Your task to perform on an android device: Go to accessibility settings Image 0: 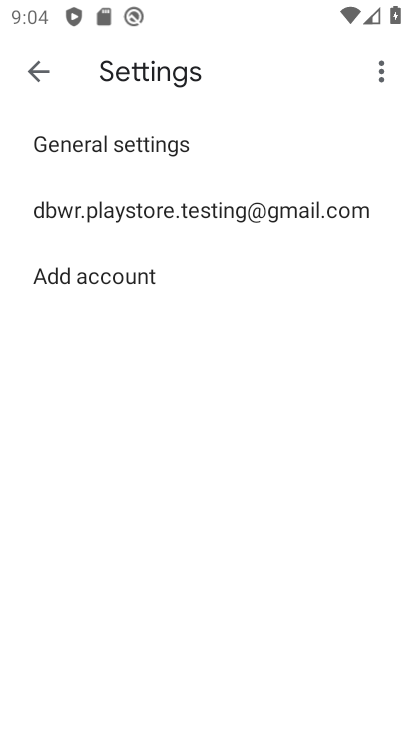
Step 0: press home button
Your task to perform on an android device: Go to accessibility settings Image 1: 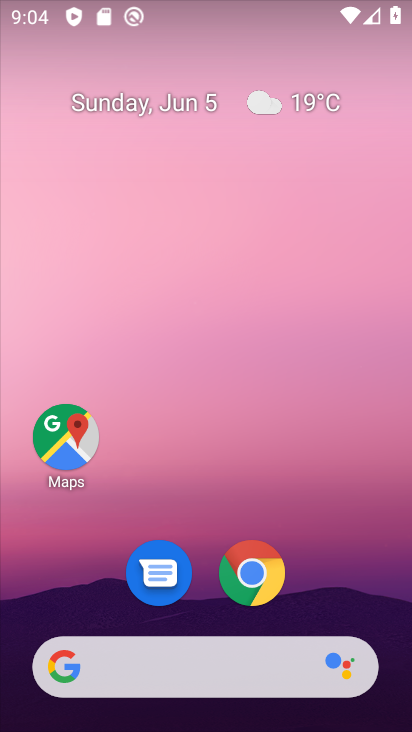
Step 1: drag from (225, 646) to (230, 14)
Your task to perform on an android device: Go to accessibility settings Image 2: 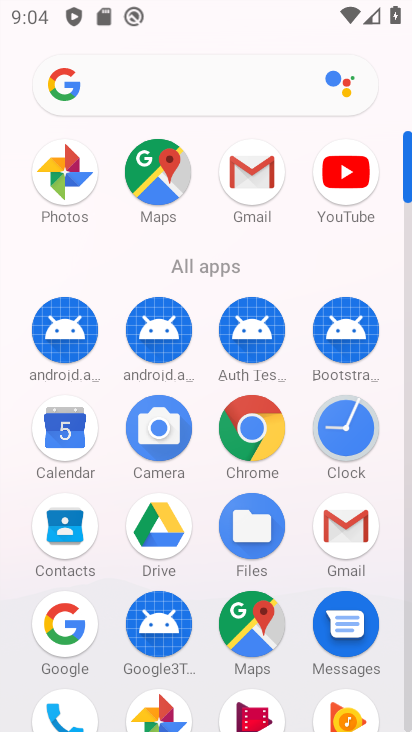
Step 2: drag from (308, 654) to (318, 324)
Your task to perform on an android device: Go to accessibility settings Image 3: 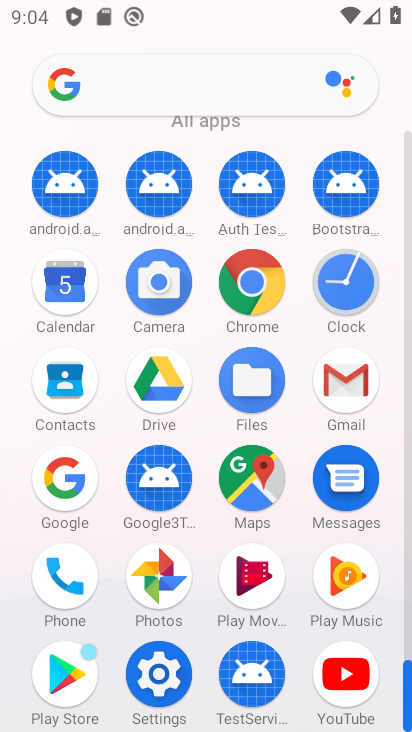
Step 3: click (158, 677)
Your task to perform on an android device: Go to accessibility settings Image 4: 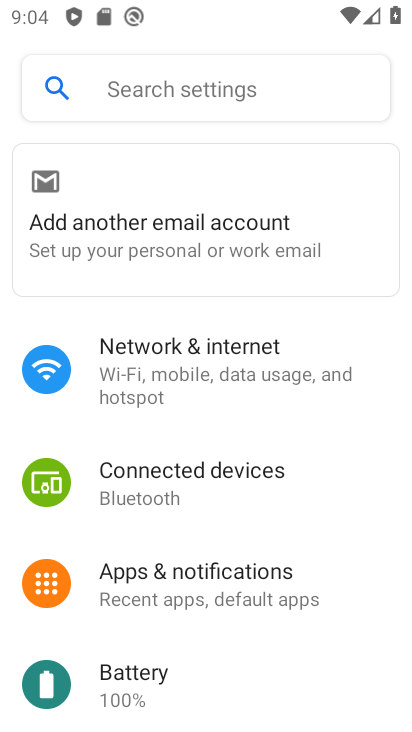
Step 4: drag from (216, 702) to (234, 268)
Your task to perform on an android device: Go to accessibility settings Image 5: 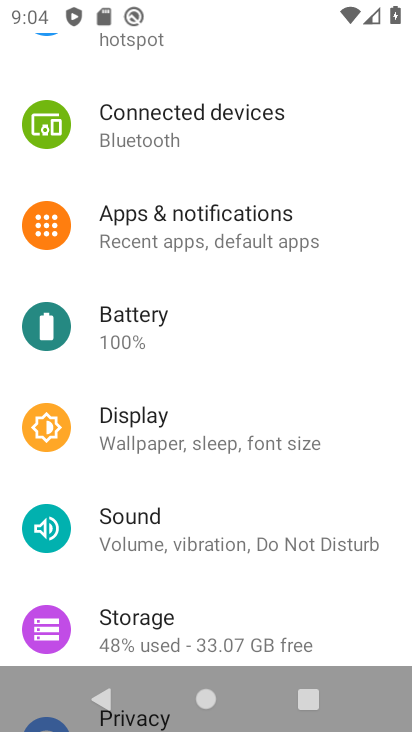
Step 5: drag from (223, 623) to (232, 179)
Your task to perform on an android device: Go to accessibility settings Image 6: 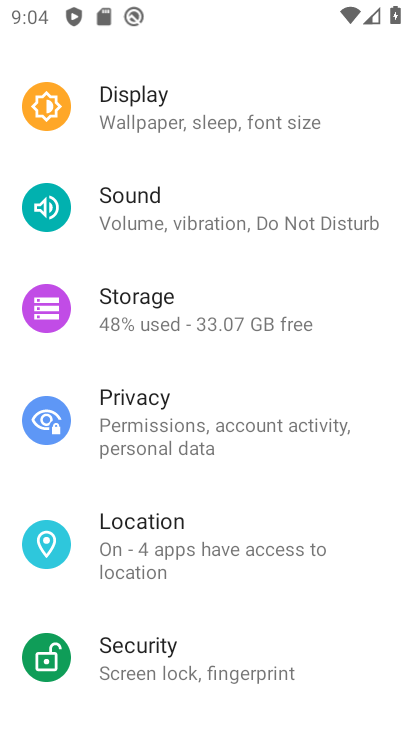
Step 6: drag from (155, 634) to (154, 223)
Your task to perform on an android device: Go to accessibility settings Image 7: 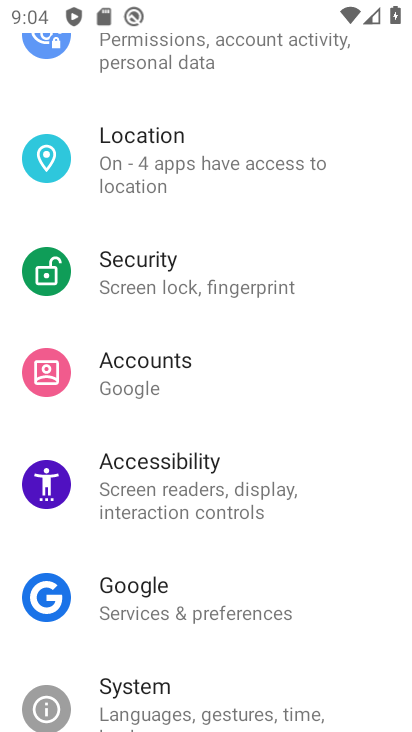
Step 7: click (141, 479)
Your task to perform on an android device: Go to accessibility settings Image 8: 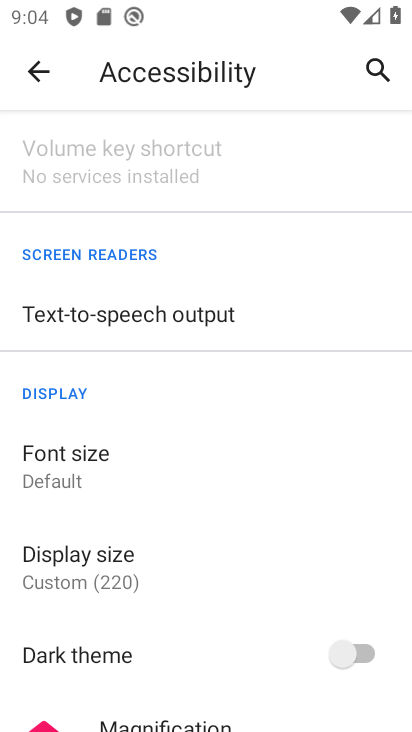
Step 8: task complete